Your task to perform on an android device: turn off notifications in google photos Image 0: 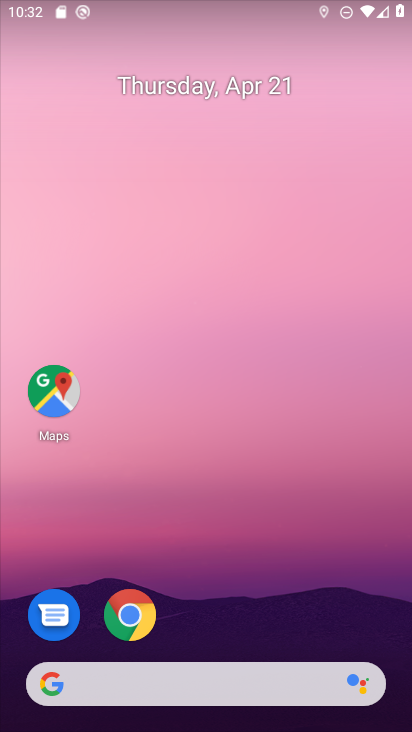
Step 0: drag from (209, 725) to (210, 174)
Your task to perform on an android device: turn off notifications in google photos Image 1: 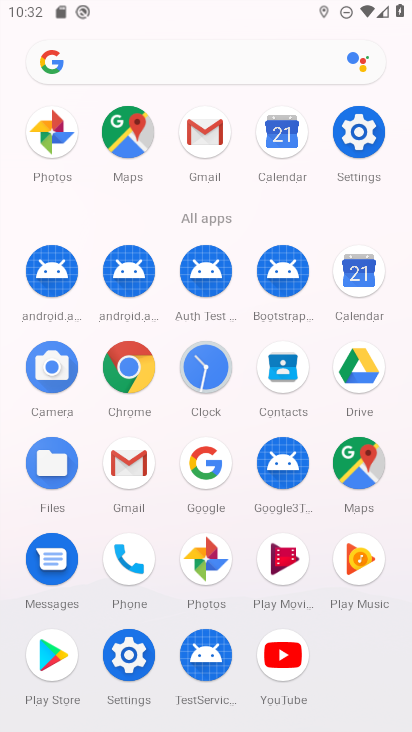
Step 1: click (55, 129)
Your task to perform on an android device: turn off notifications in google photos Image 2: 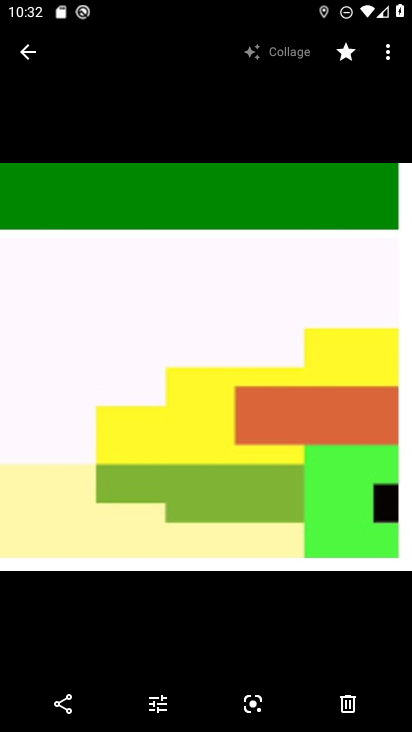
Step 2: click (26, 51)
Your task to perform on an android device: turn off notifications in google photos Image 3: 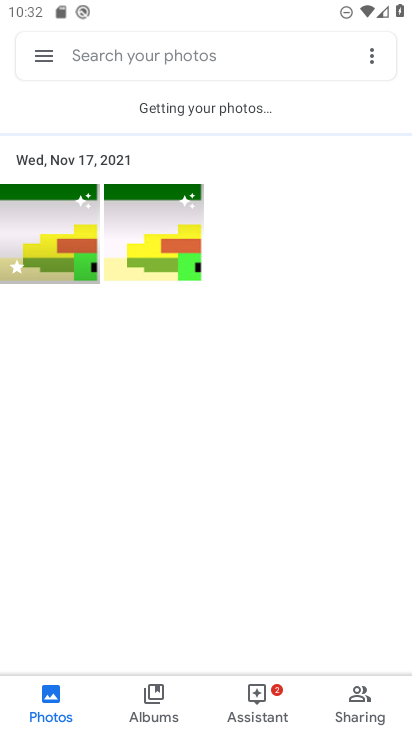
Step 3: click (43, 58)
Your task to perform on an android device: turn off notifications in google photos Image 4: 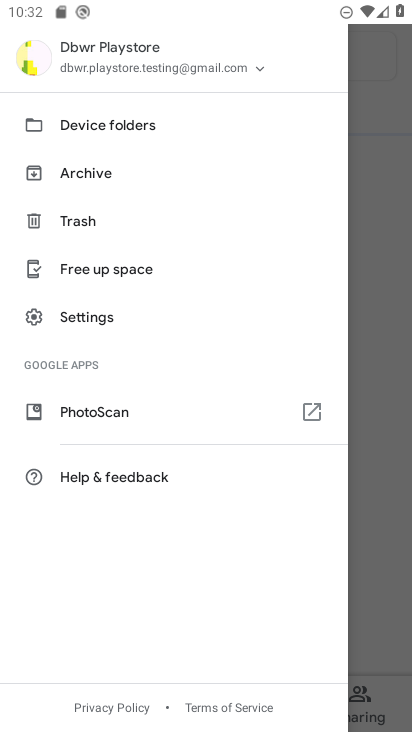
Step 4: click (83, 316)
Your task to perform on an android device: turn off notifications in google photos Image 5: 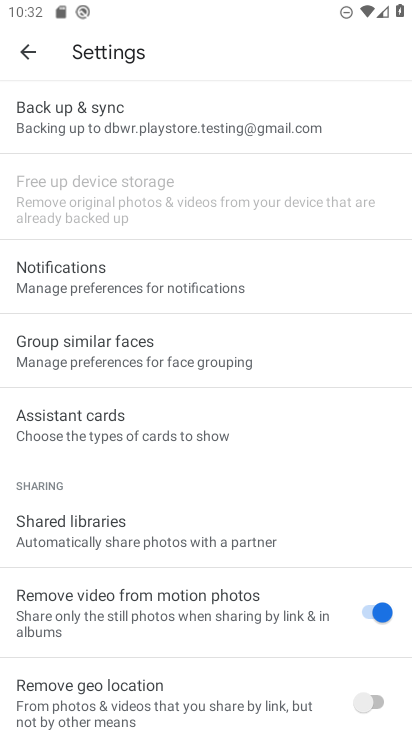
Step 5: click (96, 284)
Your task to perform on an android device: turn off notifications in google photos Image 6: 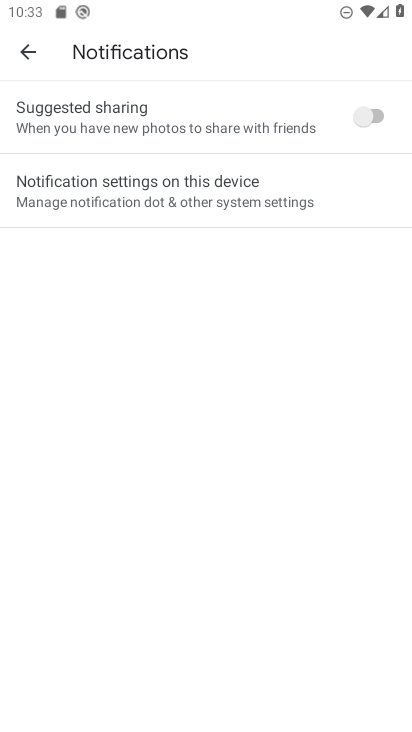
Step 6: click (155, 196)
Your task to perform on an android device: turn off notifications in google photos Image 7: 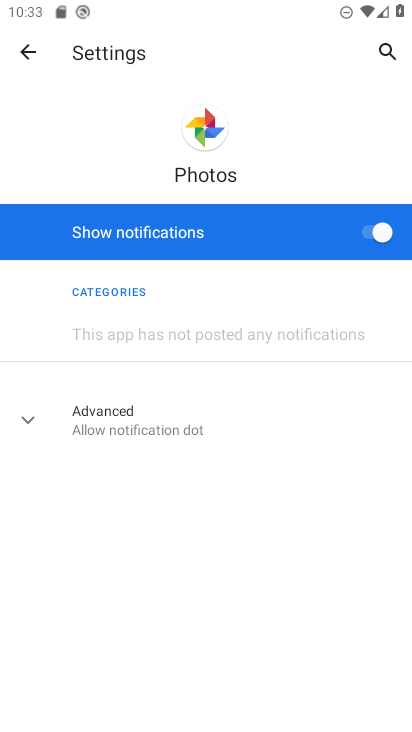
Step 7: click (363, 235)
Your task to perform on an android device: turn off notifications in google photos Image 8: 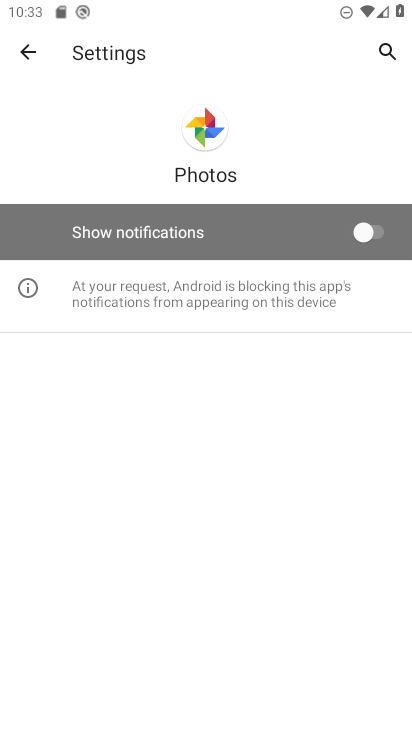
Step 8: task complete